Your task to perform on an android device: see sites visited before in the chrome app Image 0: 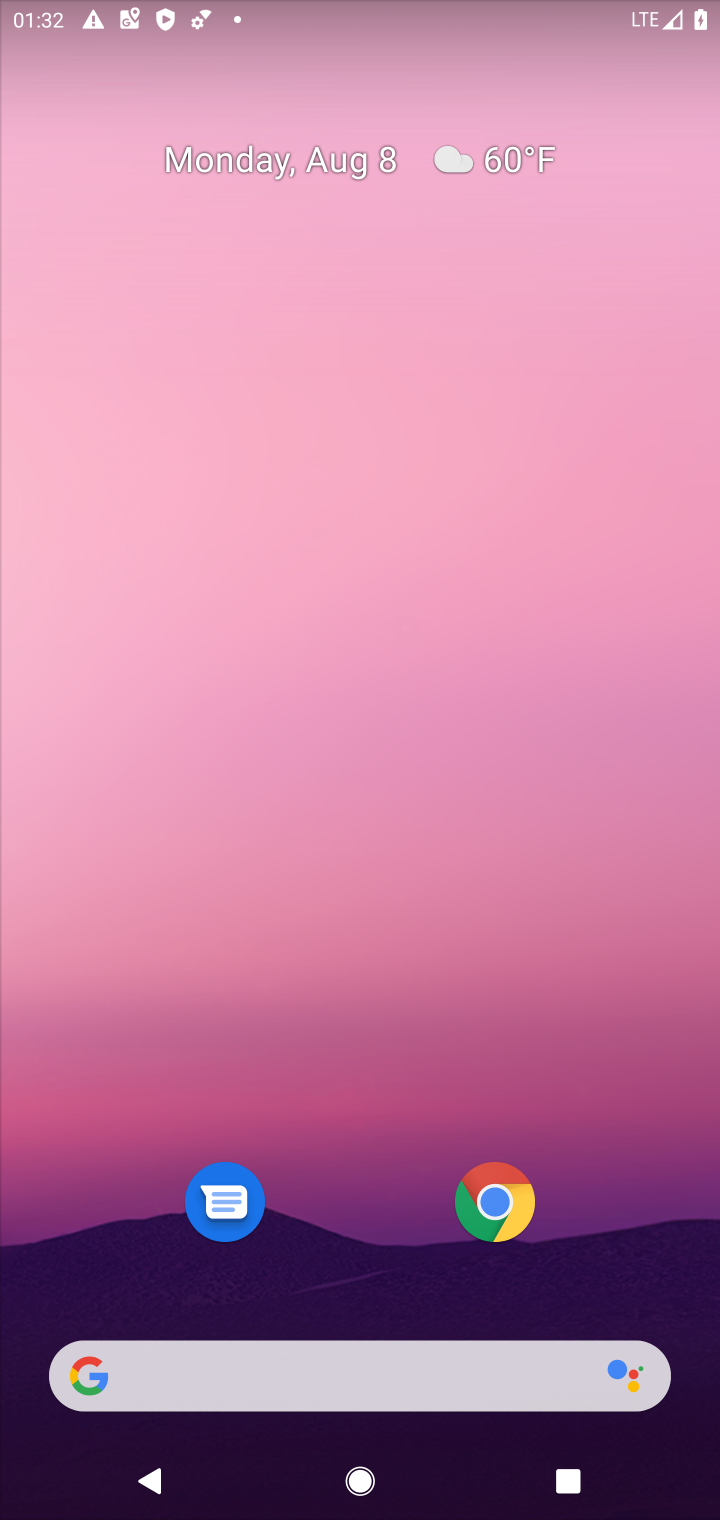
Step 0: click (492, 1204)
Your task to perform on an android device: see sites visited before in the chrome app Image 1: 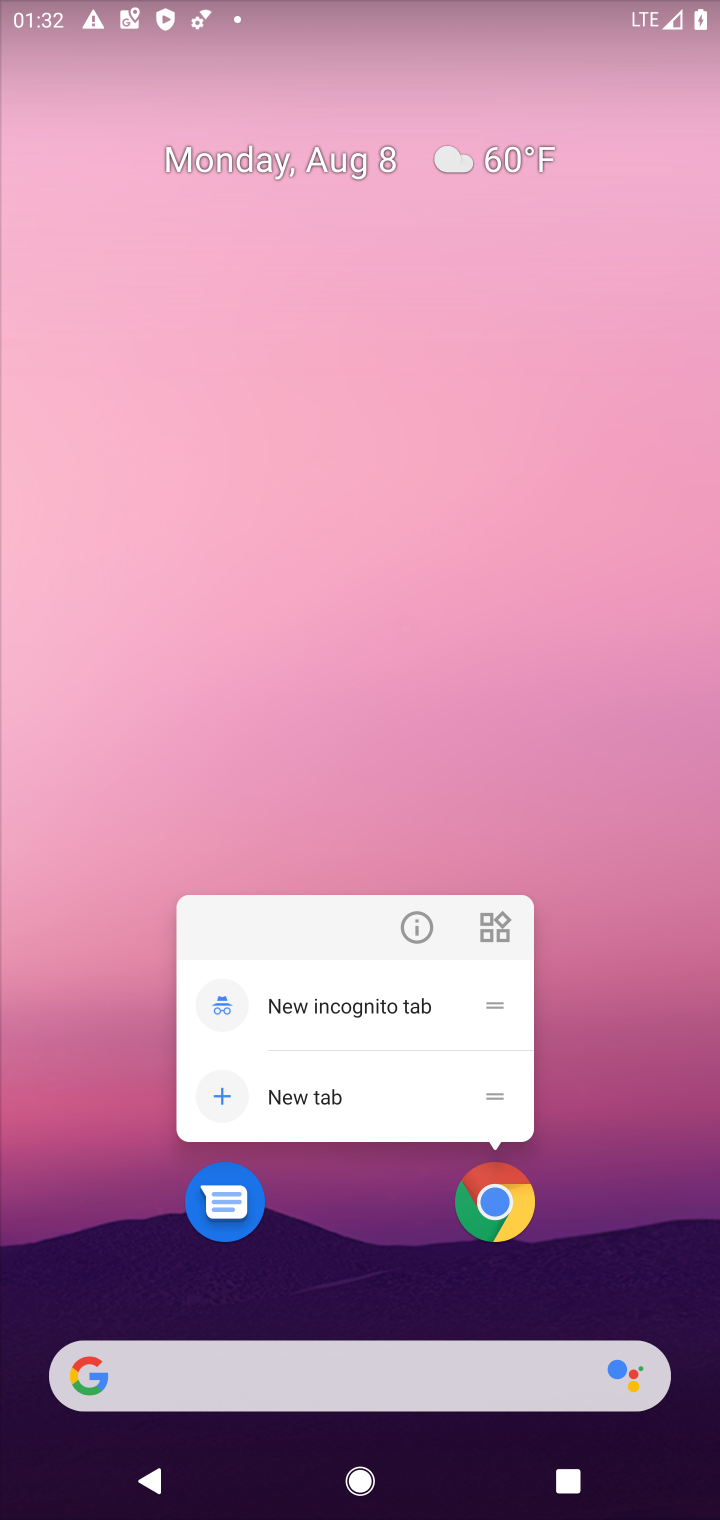
Step 1: click (484, 1204)
Your task to perform on an android device: see sites visited before in the chrome app Image 2: 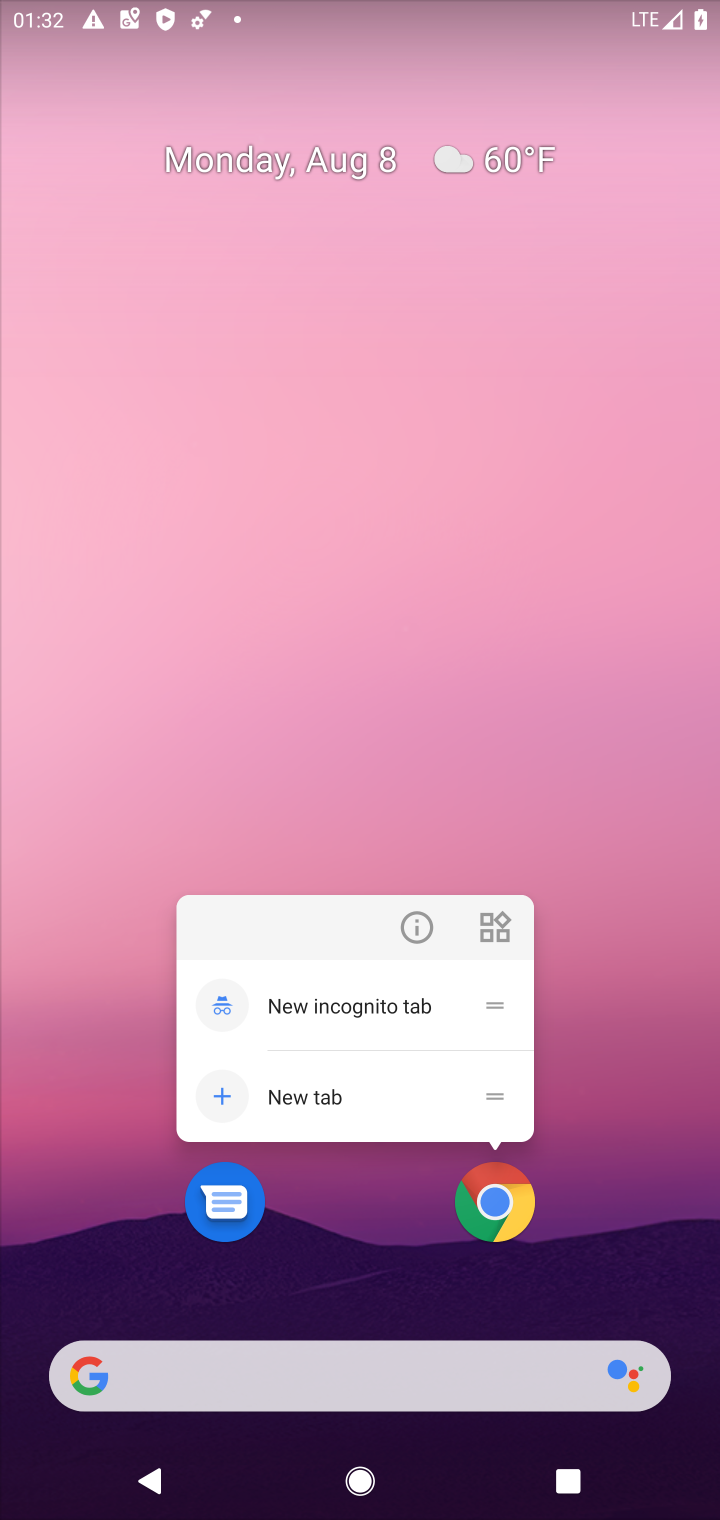
Step 2: click (504, 1209)
Your task to perform on an android device: see sites visited before in the chrome app Image 3: 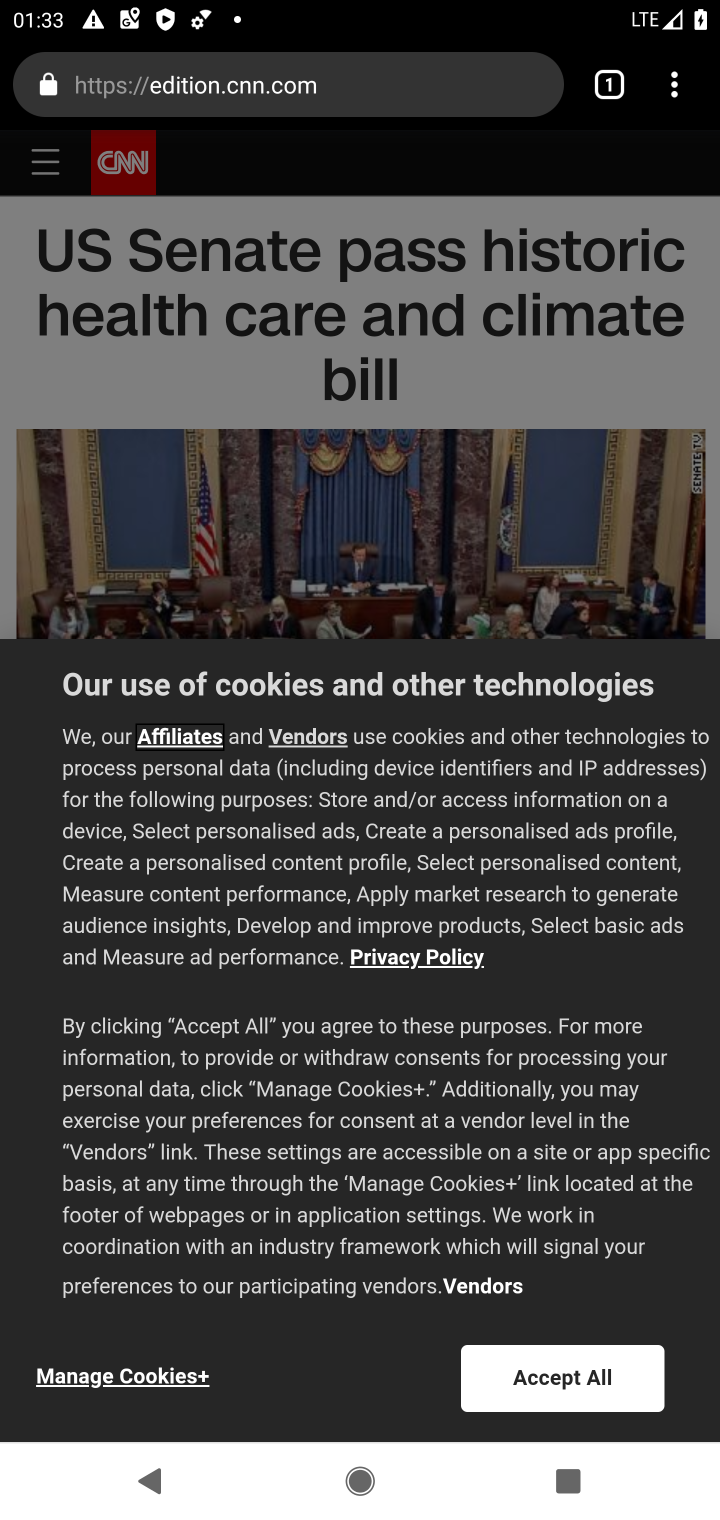
Step 3: click (682, 85)
Your task to perform on an android device: see sites visited before in the chrome app Image 4: 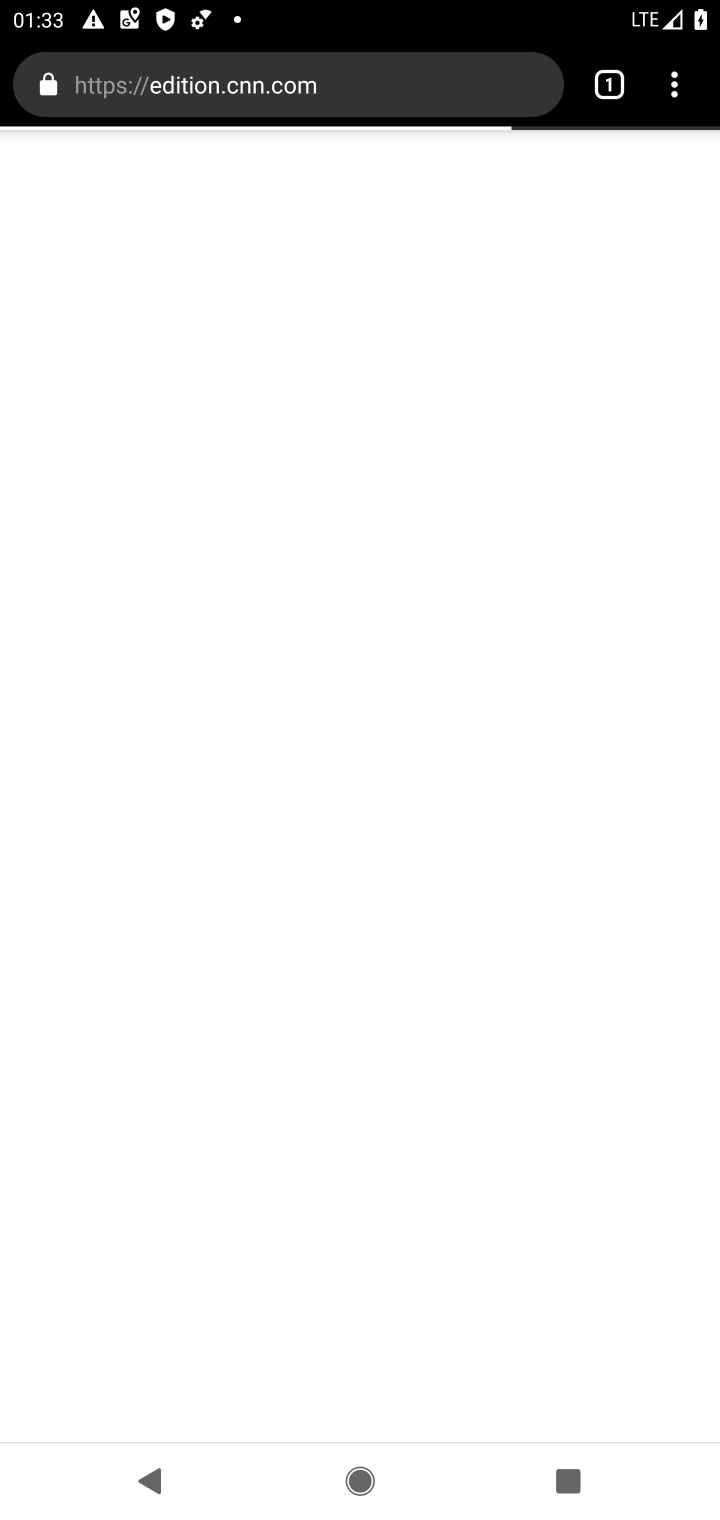
Step 4: click (673, 95)
Your task to perform on an android device: see sites visited before in the chrome app Image 5: 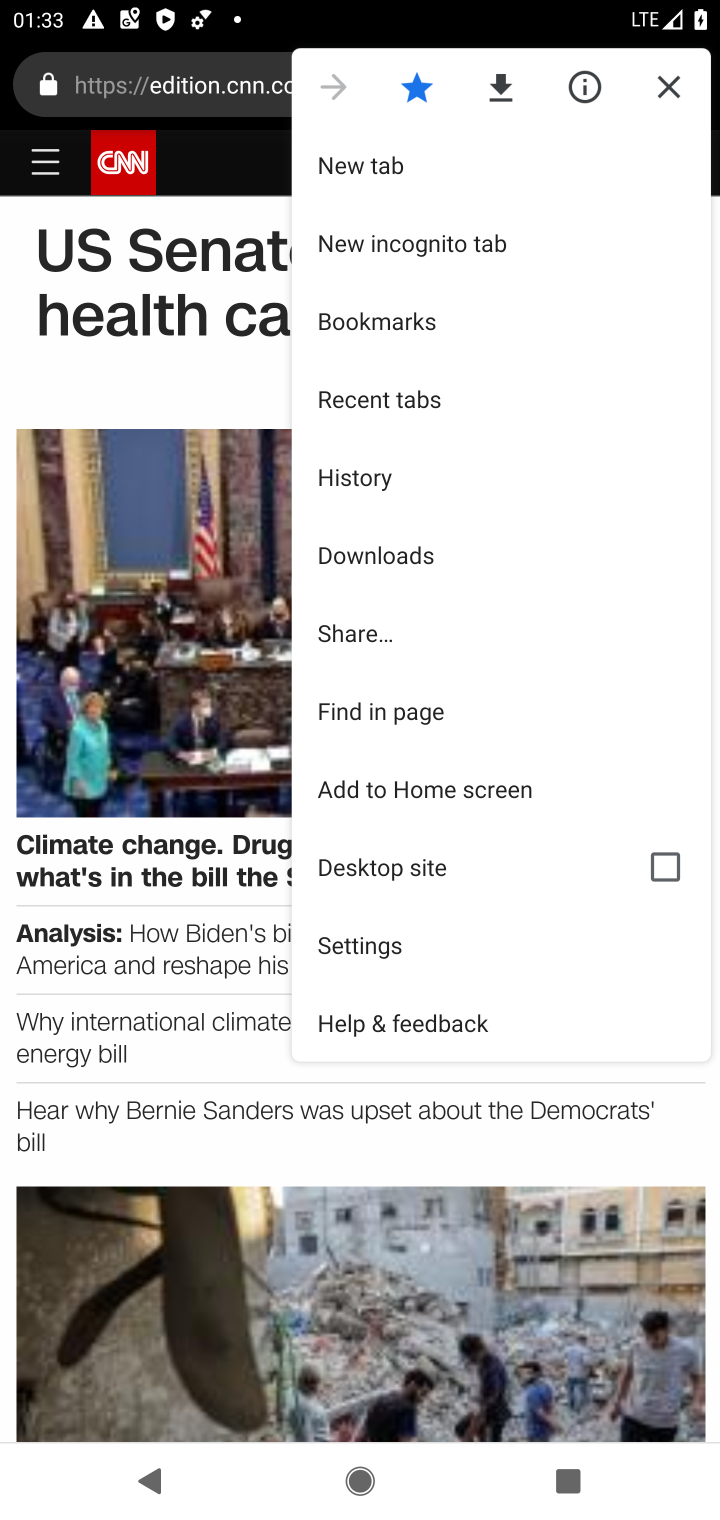
Step 5: click (354, 484)
Your task to perform on an android device: see sites visited before in the chrome app Image 6: 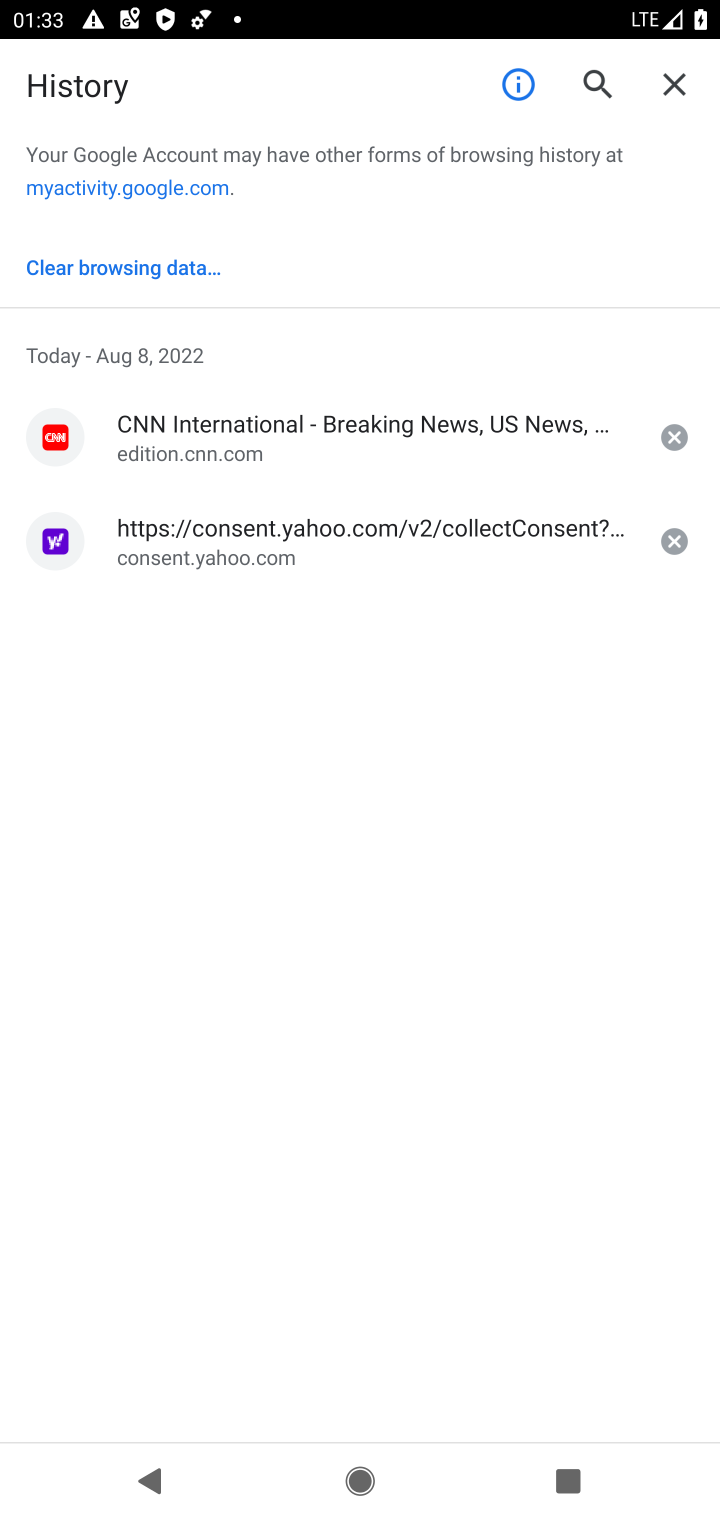
Step 6: task complete